Your task to perform on an android device: Open calendar and show me the second week of next month Image 0: 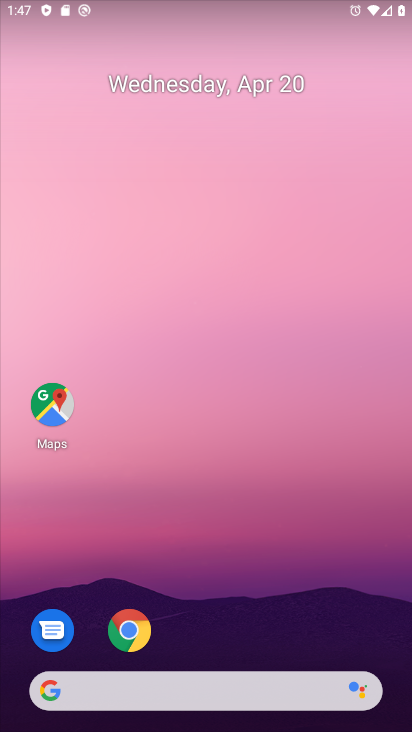
Step 0: drag from (276, 493) to (260, 139)
Your task to perform on an android device: Open calendar and show me the second week of next month Image 1: 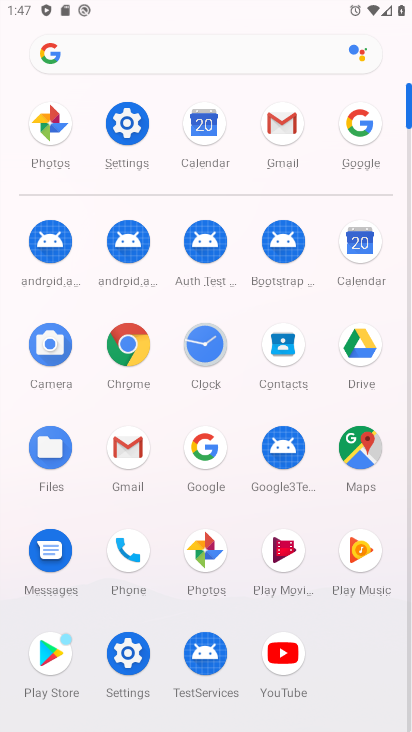
Step 1: click (366, 241)
Your task to perform on an android device: Open calendar and show me the second week of next month Image 2: 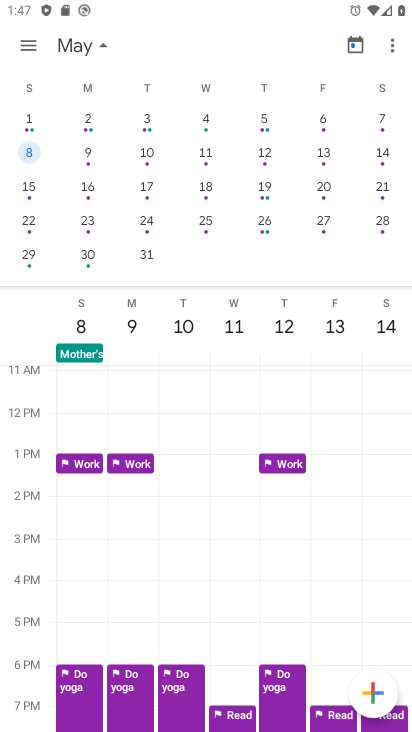
Step 2: task complete